Your task to perform on an android device: Open calendar and show me the first week of next month Image 0: 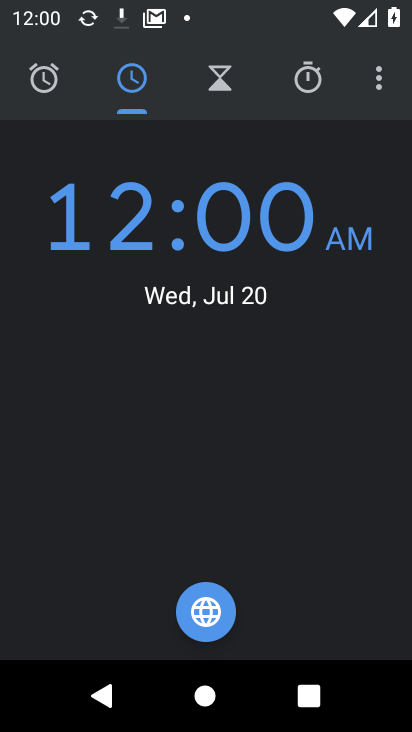
Step 0: press back button
Your task to perform on an android device: Open calendar and show me the first week of next month Image 1: 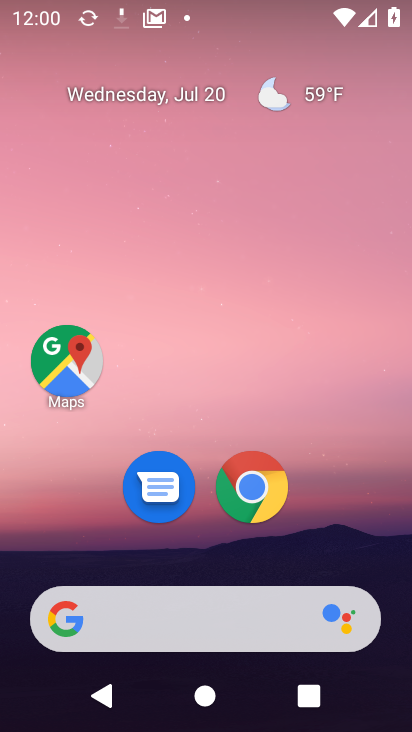
Step 1: drag from (102, 559) to (213, 13)
Your task to perform on an android device: Open calendar and show me the first week of next month Image 2: 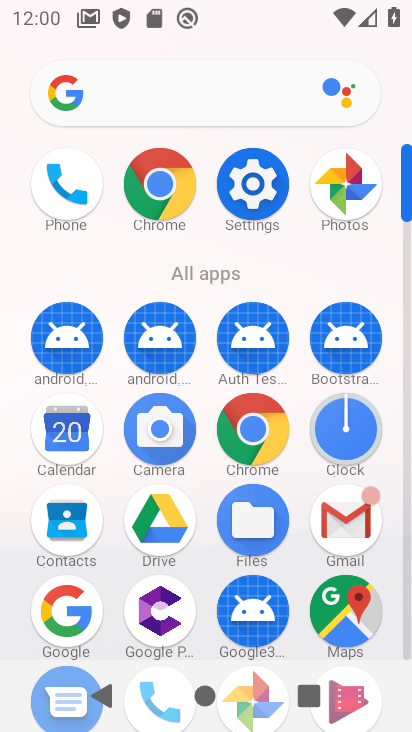
Step 2: click (78, 439)
Your task to perform on an android device: Open calendar and show me the first week of next month Image 3: 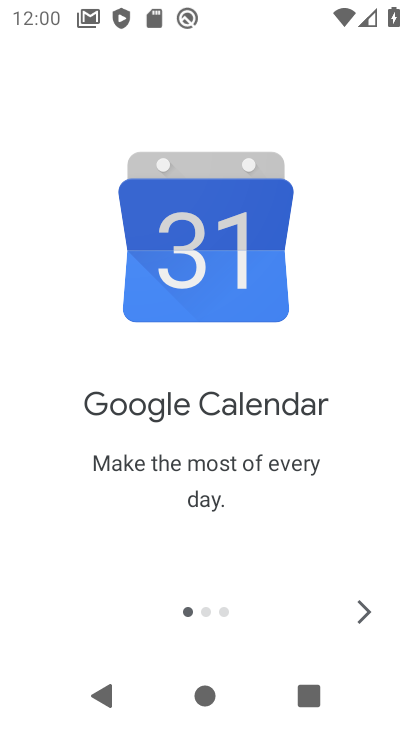
Step 3: click (343, 606)
Your task to perform on an android device: Open calendar and show me the first week of next month Image 4: 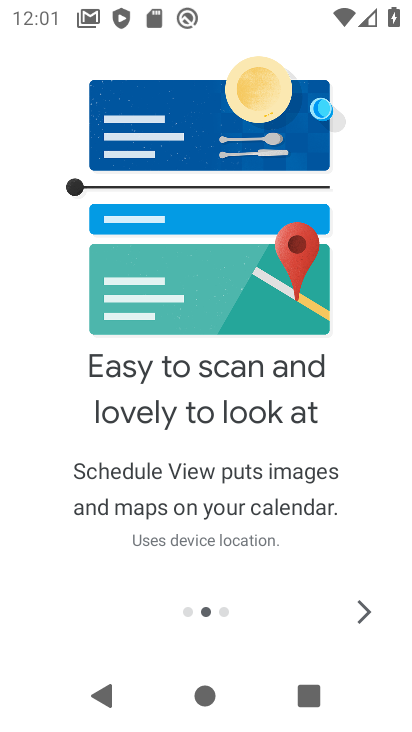
Step 4: click (361, 604)
Your task to perform on an android device: Open calendar and show me the first week of next month Image 5: 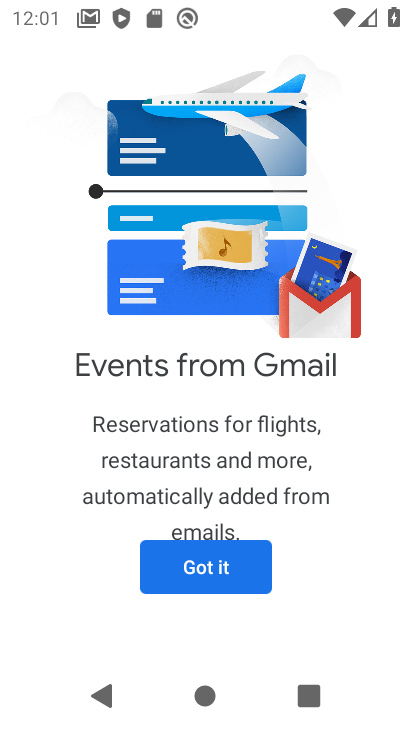
Step 5: click (199, 576)
Your task to perform on an android device: Open calendar and show me the first week of next month Image 6: 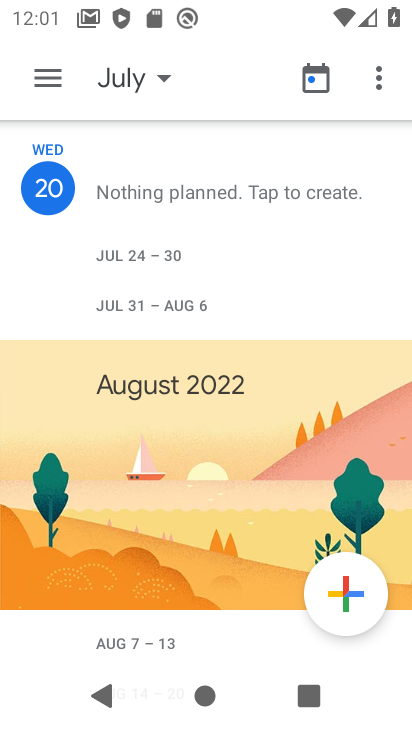
Step 6: click (145, 69)
Your task to perform on an android device: Open calendar and show me the first week of next month Image 7: 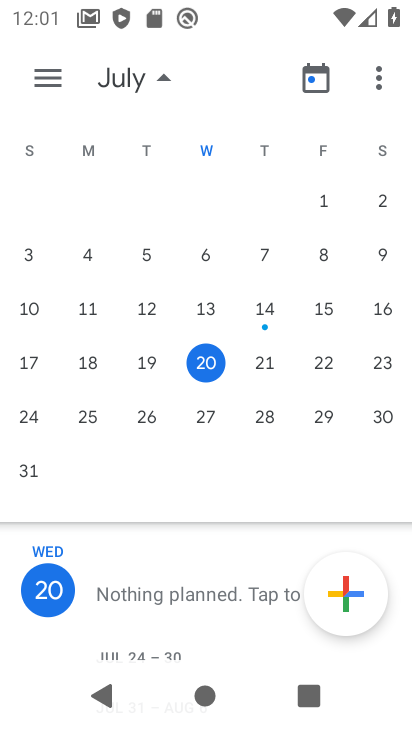
Step 7: task complete